Your task to perform on an android device: open app "Instagram" Image 0: 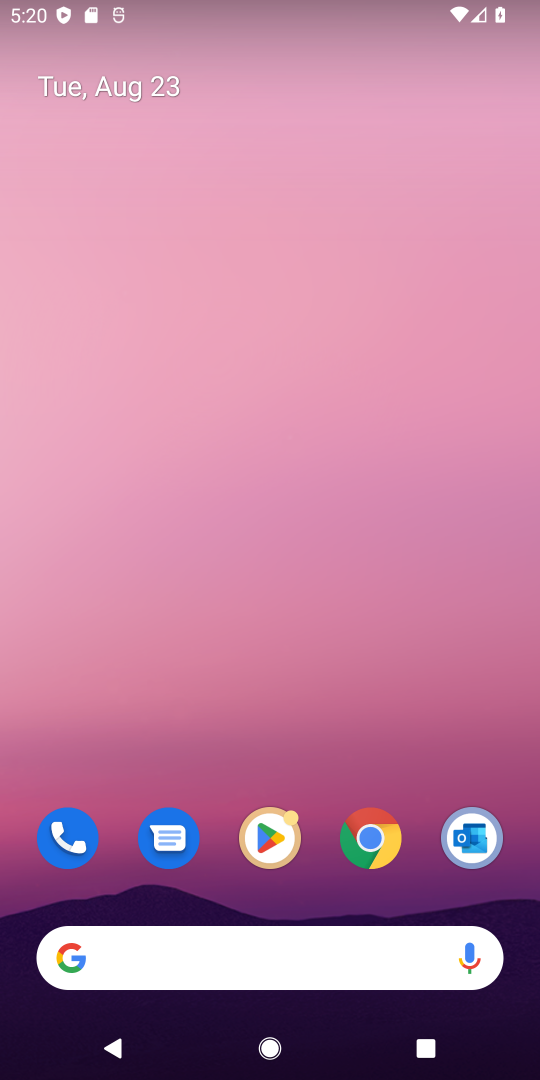
Step 0: drag from (325, 865) to (309, 128)
Your task to perform on an android device: open app "Instagram" Image 1: 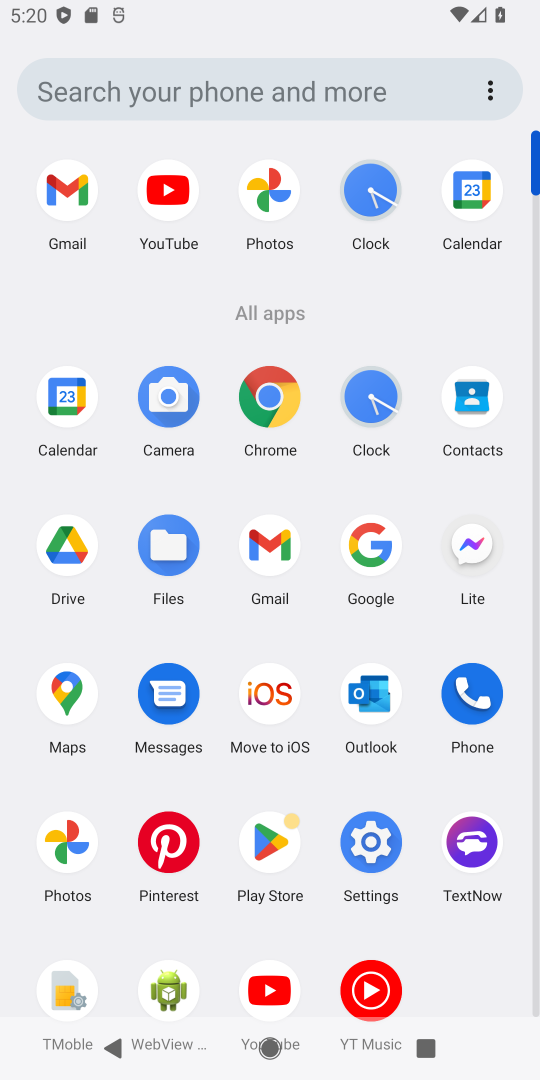
Step 1: click (271, 841)
Your task to perform on an android device: open app "Instagram" Image 2: 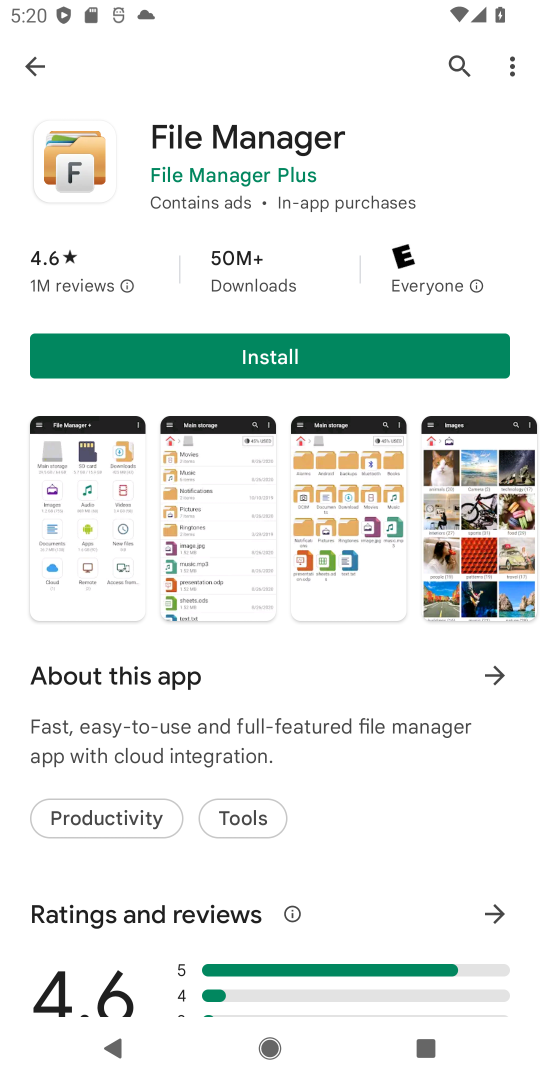
Step 2: click (460, 62)
Your task to perform on an android device: open app "Instagram" Image 3: 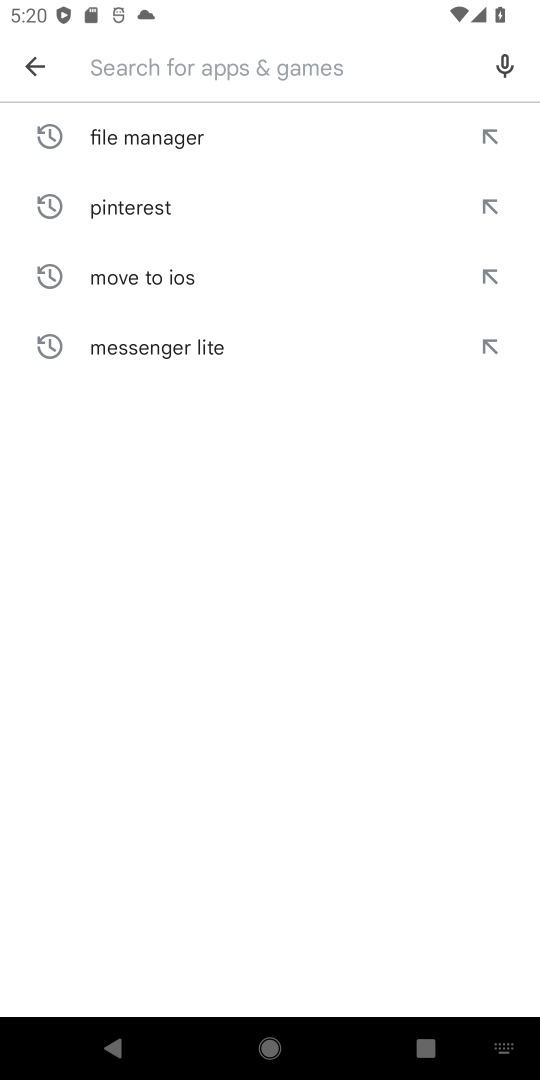
Step 3: type "Instagram"
Your task to perform on an android device: open app "Instagram" Image 4: 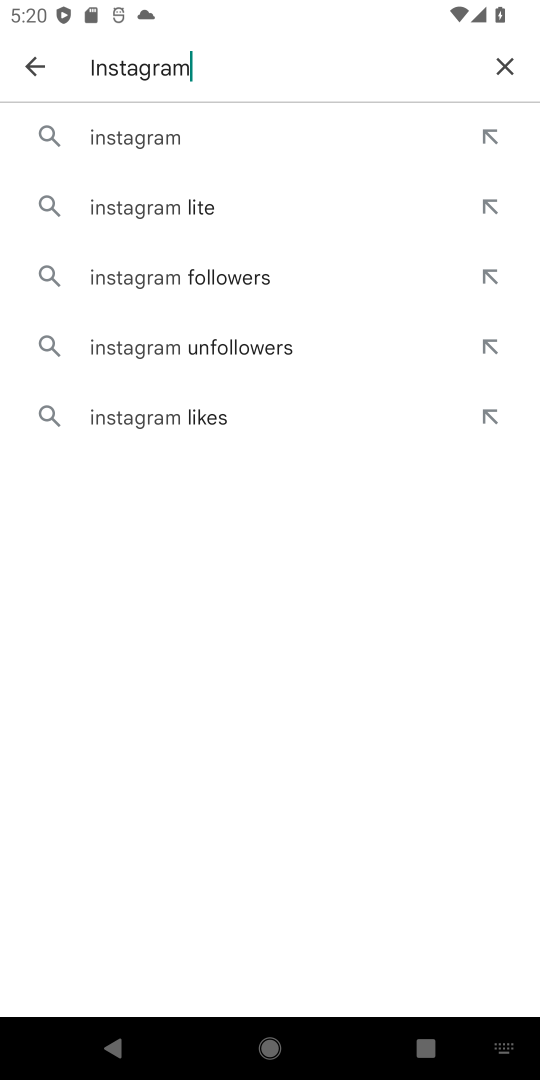
Step 4: click (145, 141)
Your task to perform on an android device: open app "Instagram" Image 5: 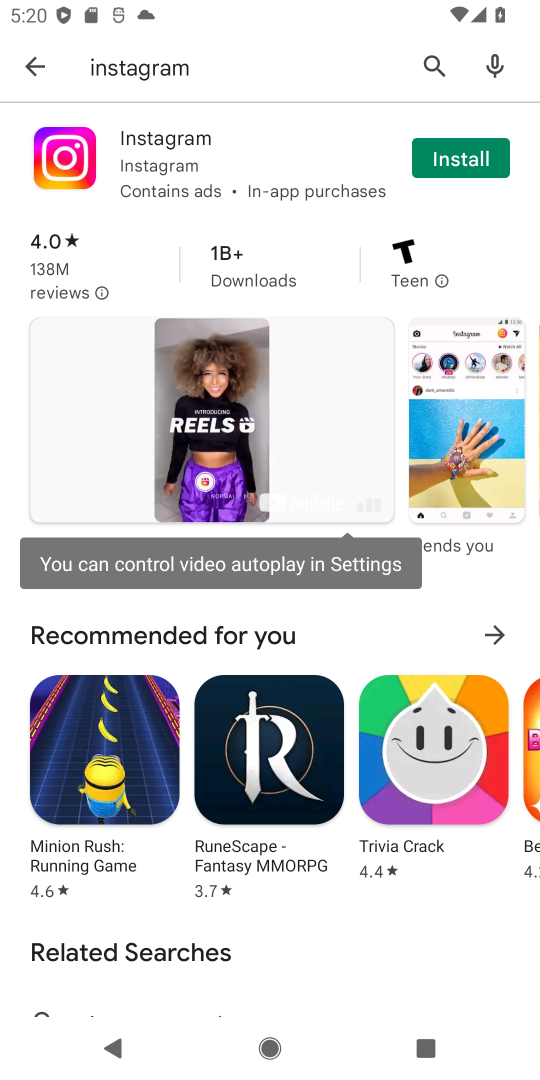
Step 5: task complete